Your task to perform on an android device: turn on location history Image 0: 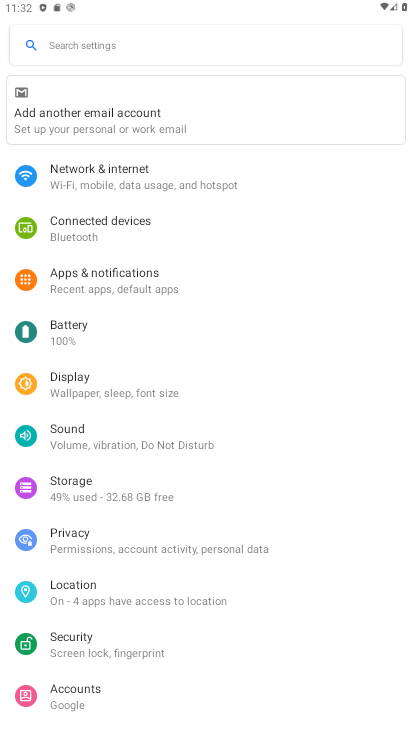
Step 0: click (137, 596)
Your task to perform on an android device: turn on location history Image 1: 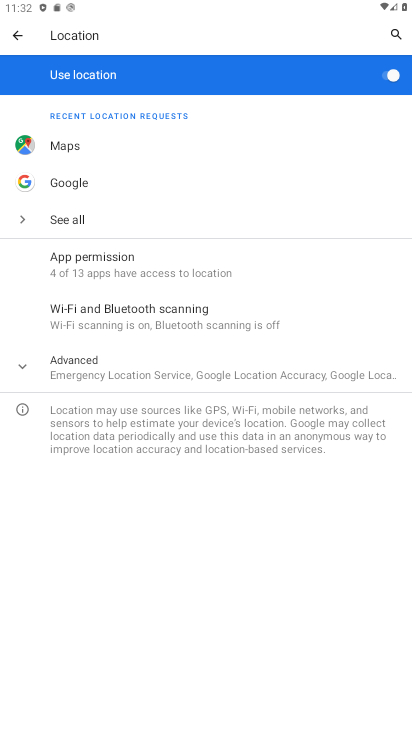
Step 1: click (151, 371)
Your task to perform on an android device: turn on location history Image 2: 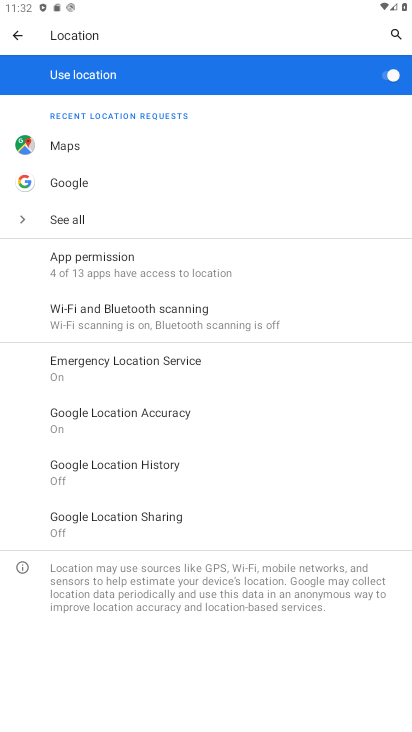
Step 2: click (144, 465)
Your task to perform on an android device: turn on location history Image 3: 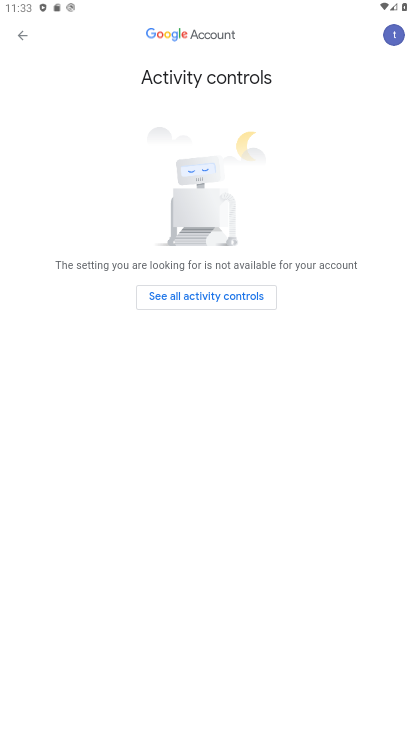
Step 3: click (258, 198)
Your task to perform on an android device: turn on location history Image 4: 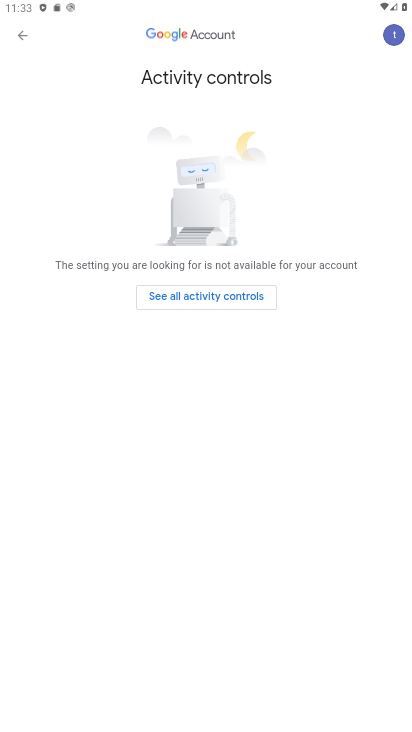
Step 4: click (15, 36)
Your task to perform on an android device: turn on location history Image 5: 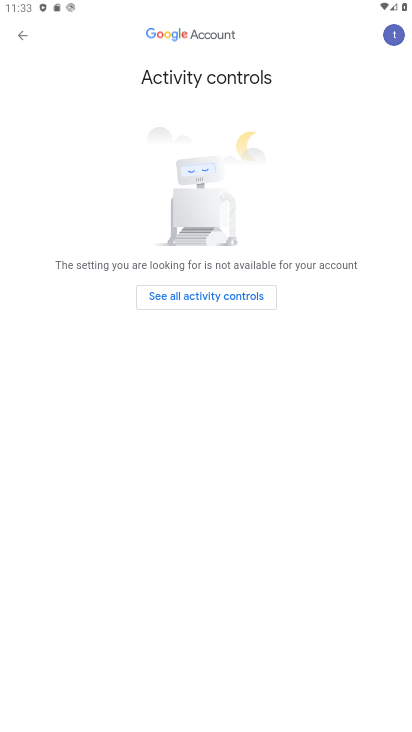
Step 5: click (16, 29)
Your task to perform on an android device: turn on location history Image 6: 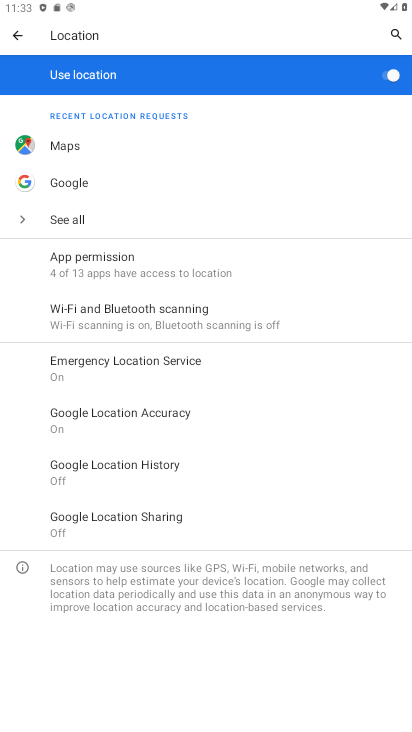
Step 6: drag from (228, 601) to (210, 232)
Your task to perform on an android device: turn on location history Image 7: 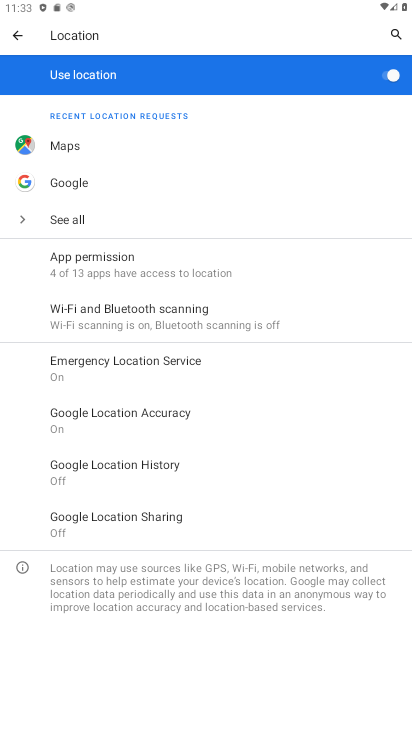
Step 7: click (140, 455)
Your task to perform on an android device: turn on location history Image 8: 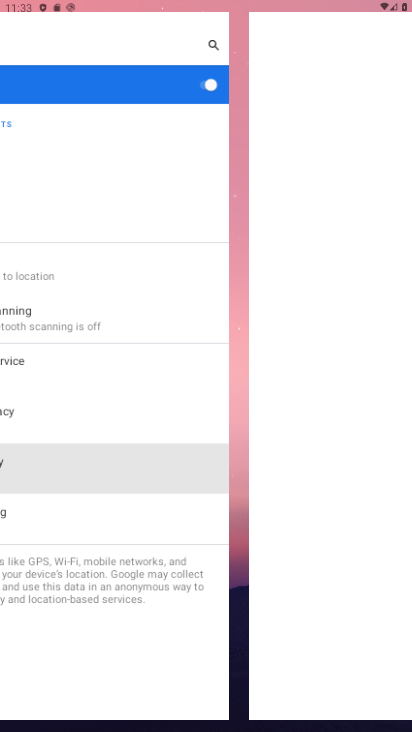
Step 8: click (135, 459)
Your task to perform on an android device: turn on location history Image 9: 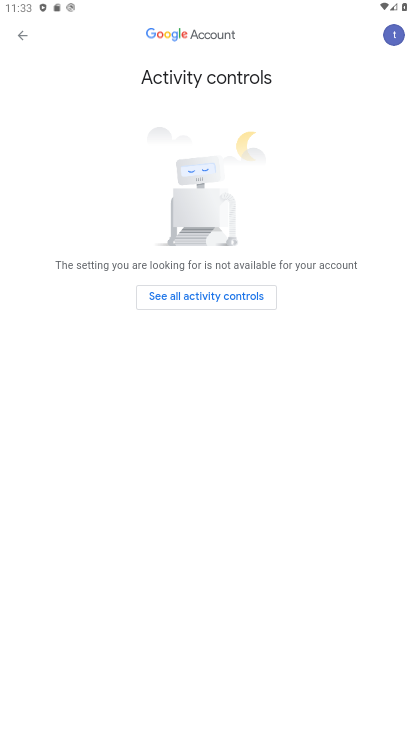
Step 9: click (185, 296)
Your task to perform on an android device: turn on location history Image 10: 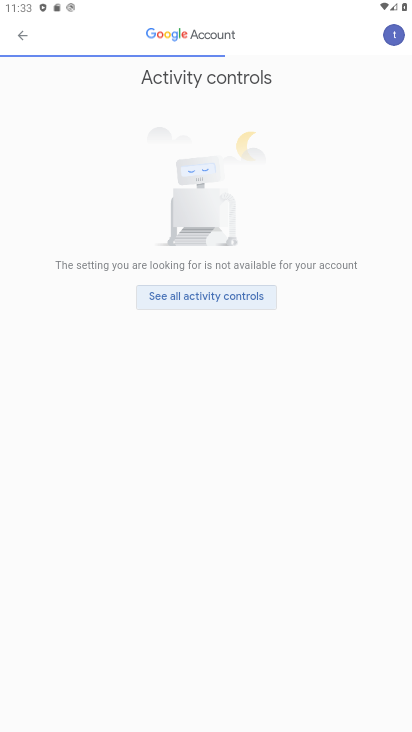
Step 10: click (185, 296)
Your task to perform on an android device: turn on location history Image 11: 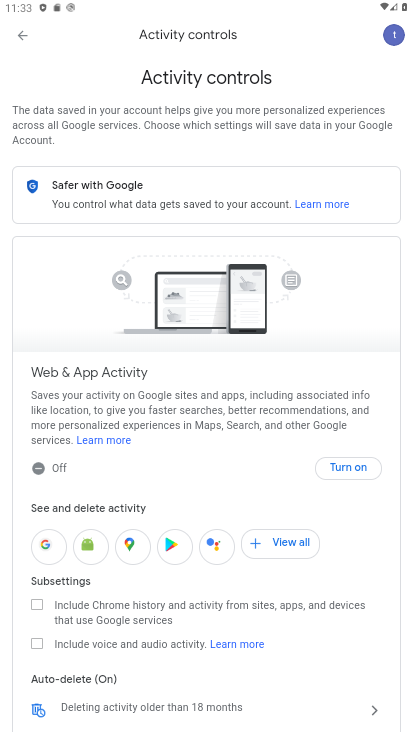
Step 11: click (331, 460)
Your task to perform on an android device: turn on location history Image 12: 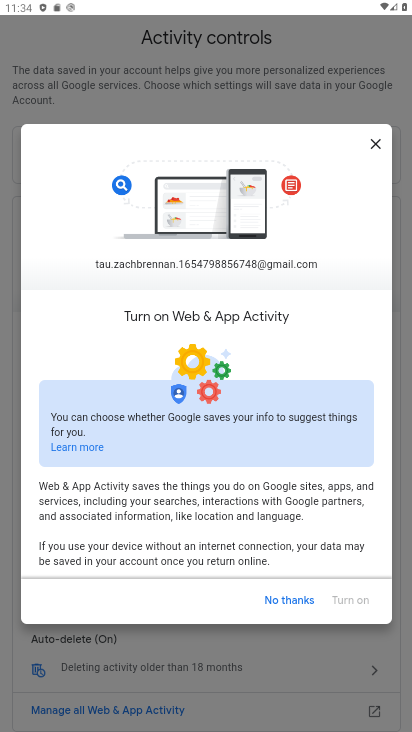
Step 12: drag from (193, 646) to (292, 239)
Your task to perform on an android device: turn on location history Image 13: 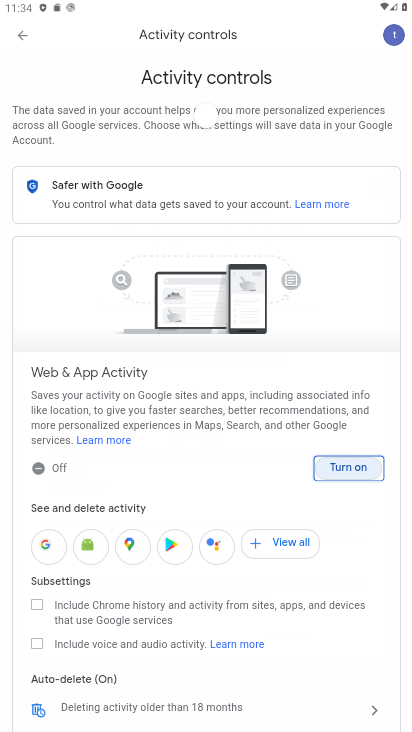
Step 13: click (304, 600)
Your task to perform on an android device: turn on location history Image 14: 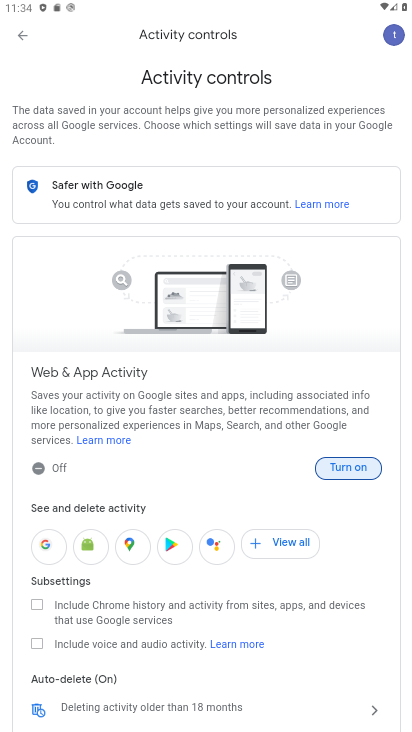
Step 14: drag from (271, 588) to (319, 250)
Your task to perform on an android device: turn on location history Image 15: 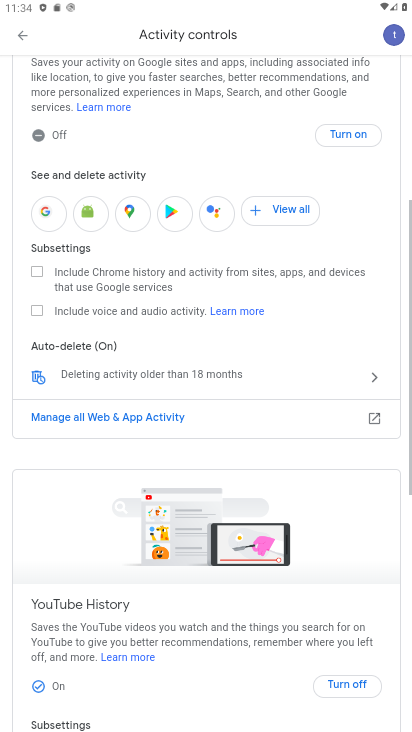
Step 15: drag from (214, 185) to (266, 623)
Your task to perform on an android device: turn on location history Image 16: 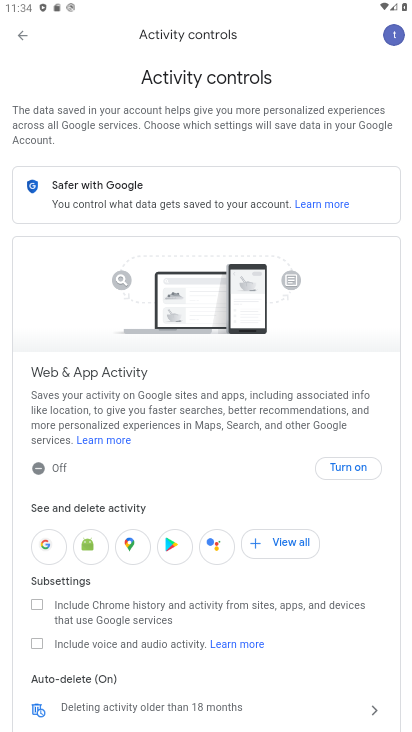
Step 16: drag from (177, 605) to (305, 101)
Your task to perform on an android device: turn on location history Image 17: 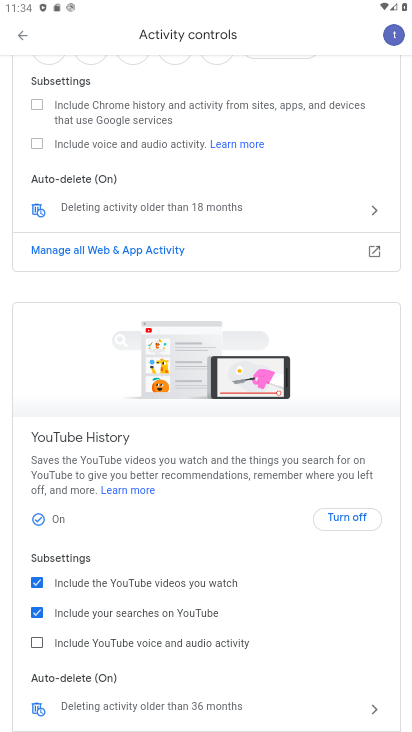
Step 17: drag from (218, 292) to (326, 729)
Your task to perform on an android device: turn on location history Image 18: 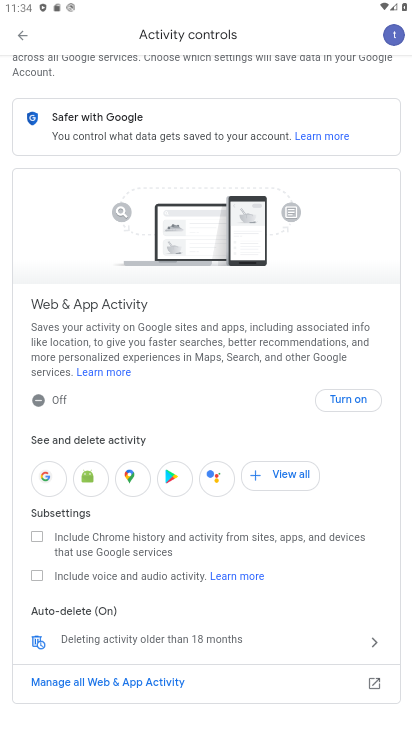
Step 18: click (349, 393)
Your task to perform on an android device: turn on location history Image 19: 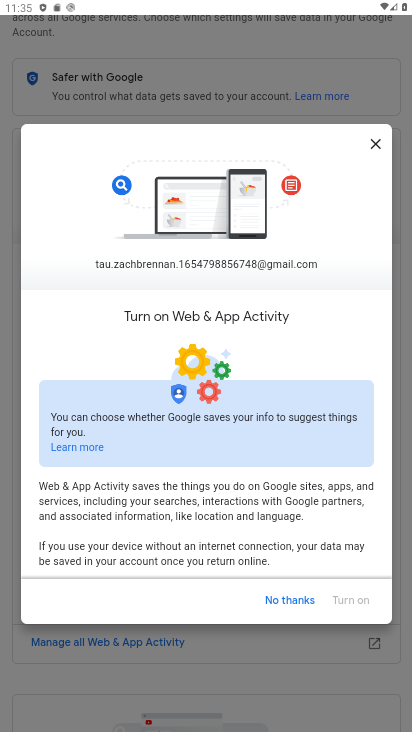
Step 19: drag from (252, 461) to (369, 0)
Your task to perform on an android device: turn on location history Image 20: 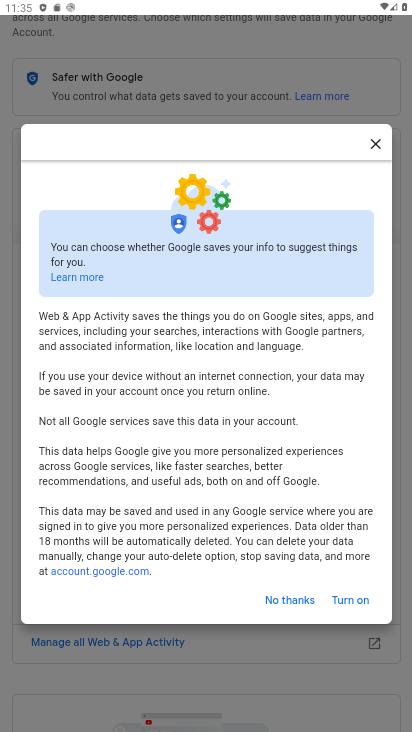
Step 20: drag from (203, 529) to (311, 160)
Your task to perform on an android device: turn on location history Image 21: 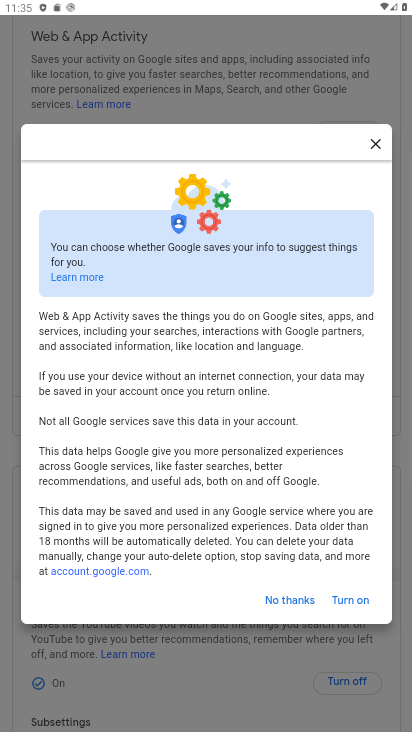
Step 21: click (349, 601)
Your task to perform on an android device: turn on location history Image 22: 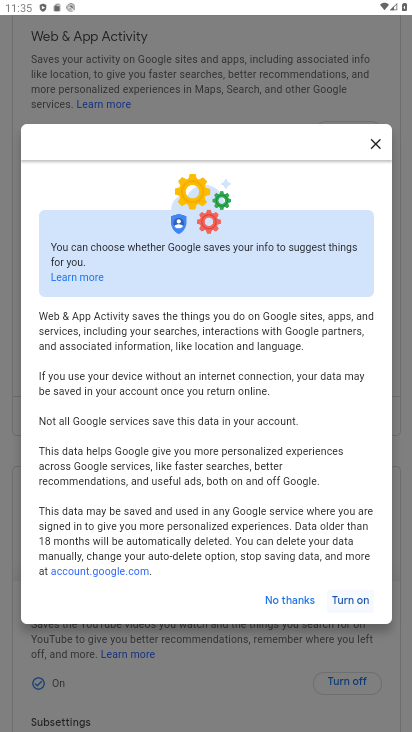
Step 22: task complete